Your task to perform on an android device: Open Chrome and go to settings Image 0: 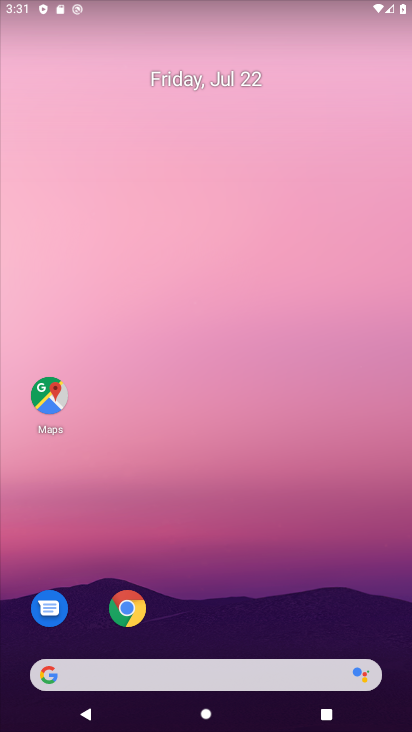
Step 0: click (126, 612)
Your task to perform on an android device: Open Chrome and go to settings Image 1: 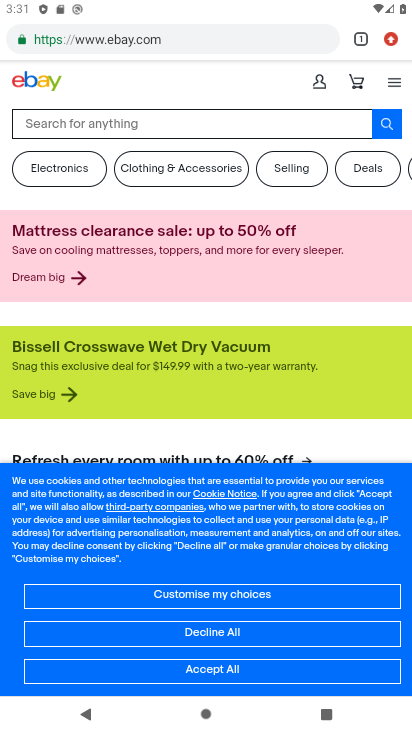
Step 1: click (392, 39)
Your task to perform on an android device: Open Chrome and go to settings Image 2: 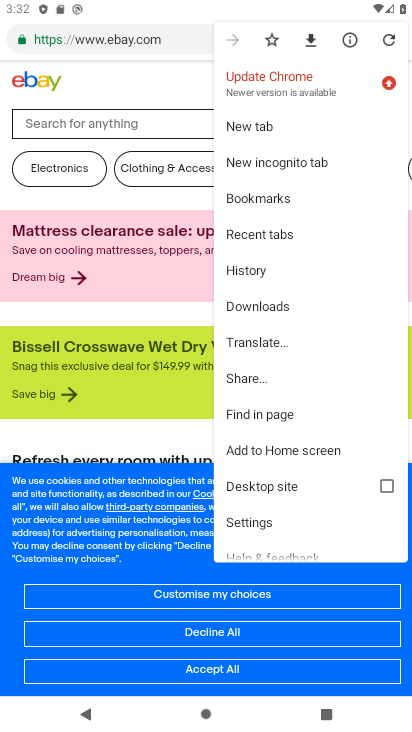
Step 2: click (251, 524)
Your task to perform on an android device: Open Chrome and go to settings Image 3: 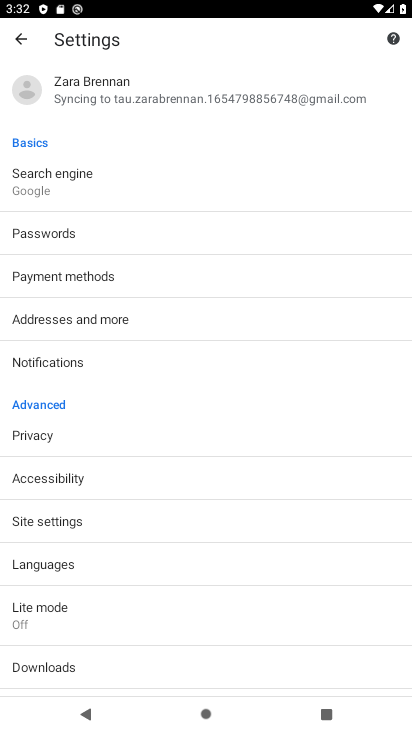
Step 3: task complete